Your task to perform on an android device: change the clock display to digital Image 0: 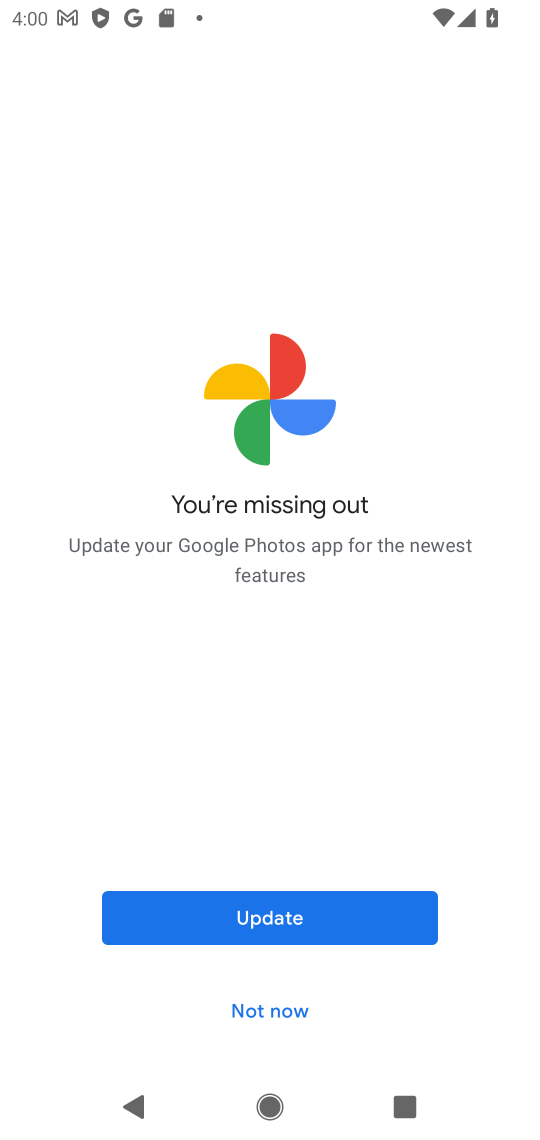
Step 0: press home button
Your task to perform on an android device: change the clock display to digital Image 1: 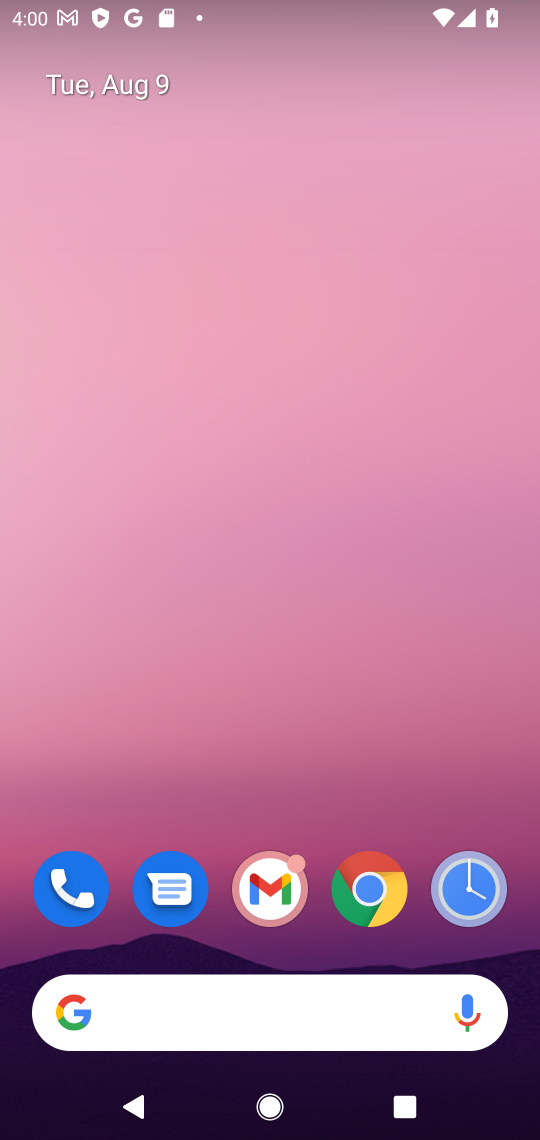
Step 1: click (476, 878)
Your task to perform on an android device: change the clock display to digital Image 2: 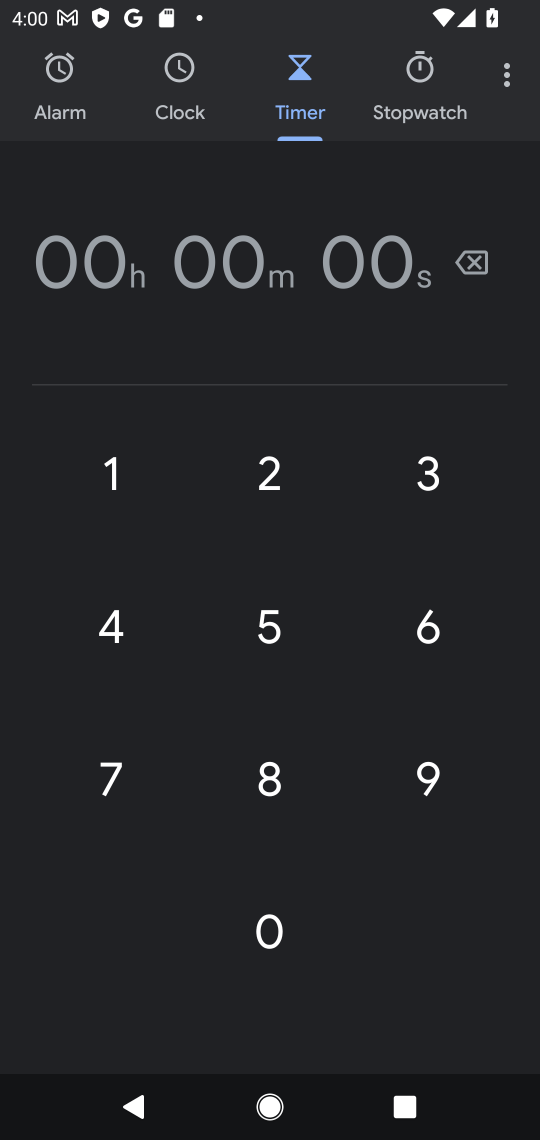
Step 2: click (190, 75)
Your task to perform on an android device: change the clock display to digital Image 3: 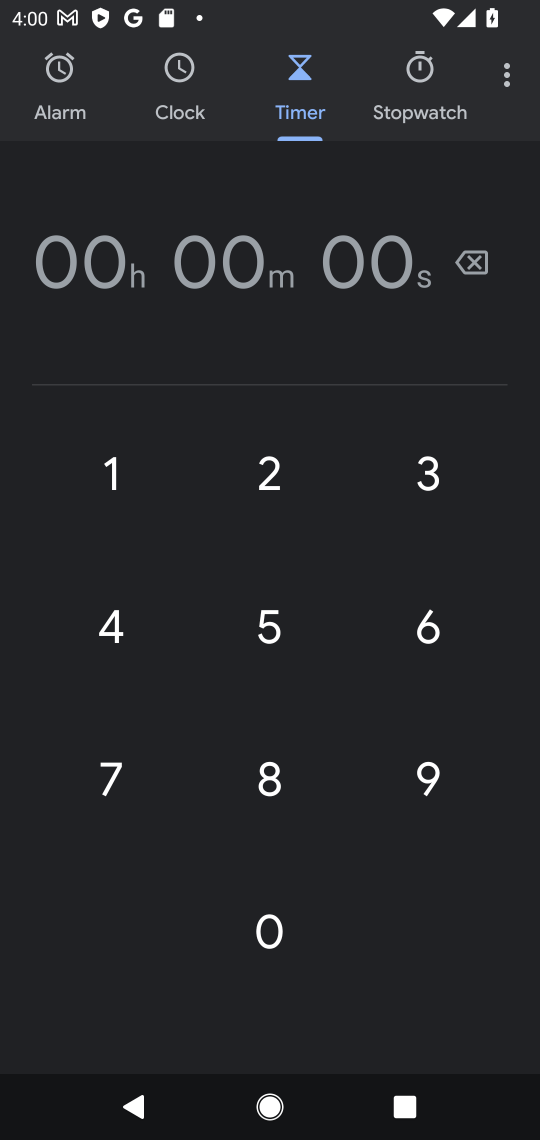
Step 3: click (173, 64)
Your task to perform on an android device: change the clock display to digital Image 4: 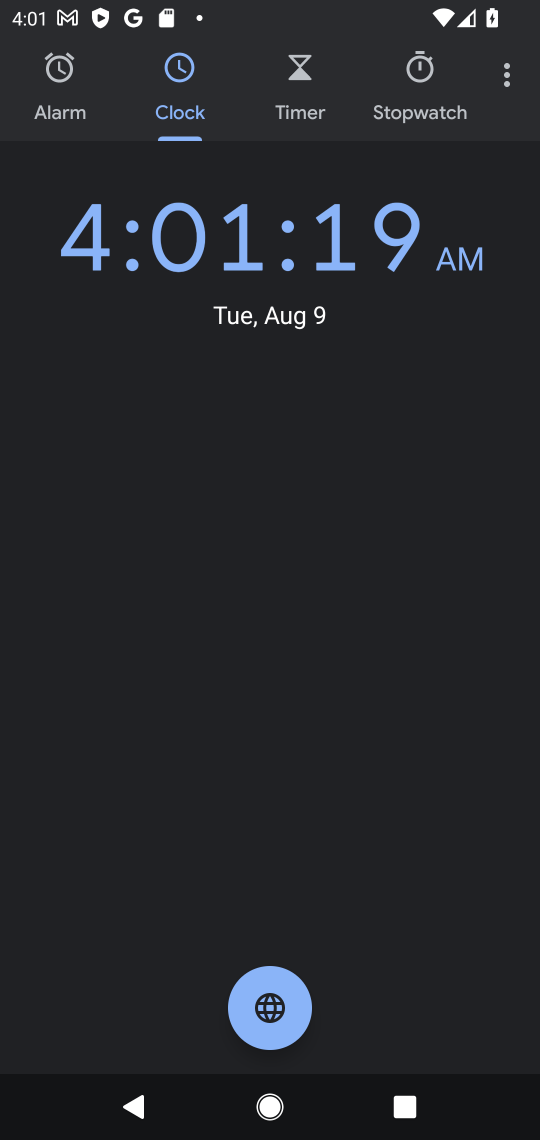
Step 4: task complete